Your task to perform on an android device: add a contact Image 0: 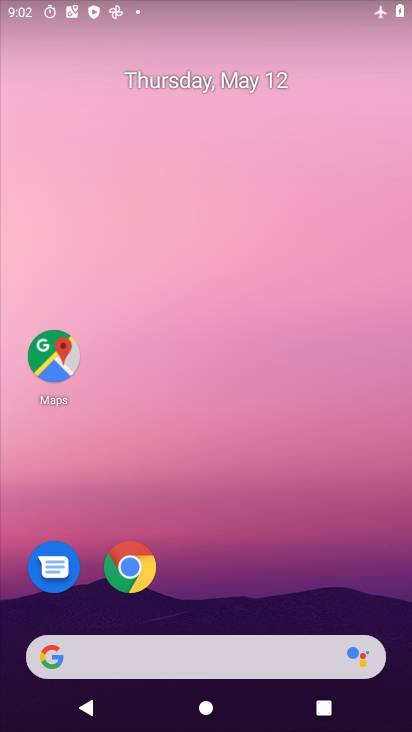
Step 0: drag from (235, 610) to (254, 139)
Your task to perform on an android device: add a contact Image 1: 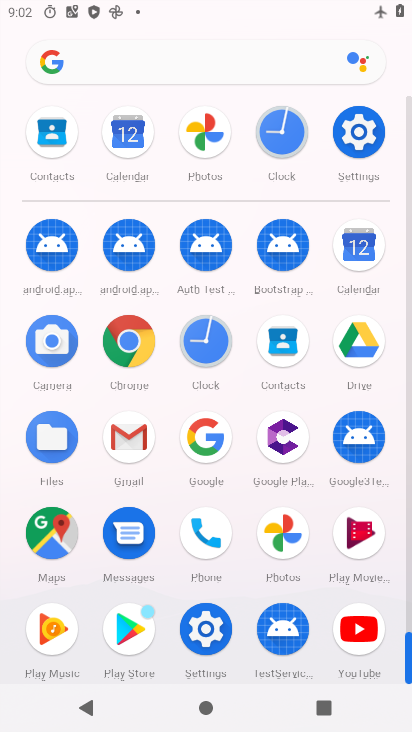
Step 1: click (281, 346)
Your task to perform on an android device: add a contact Image 2: 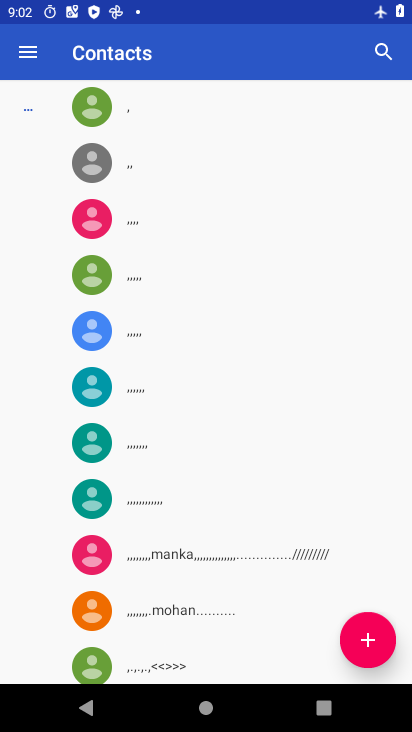
Step 2: click (376, 640)
Your task to perform on an android device: add a contact Image 3: 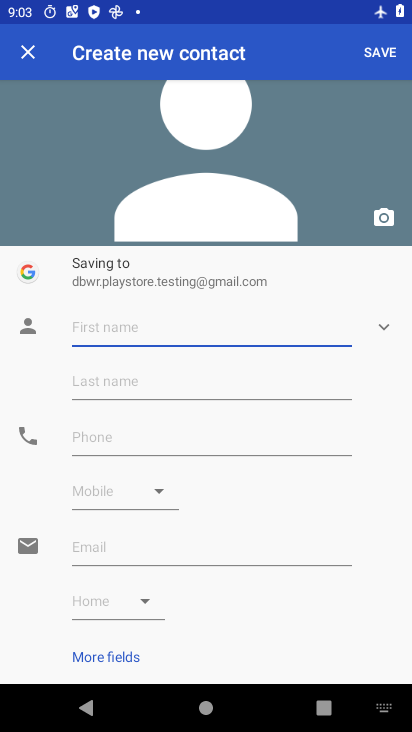
Step 3: type "nihmmj"
Your task to perform on an android device: add a contact Image 4: 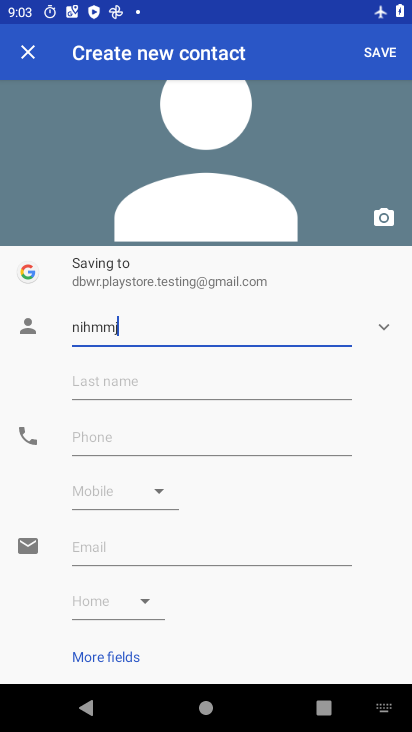
Step 4: click (130, 438)
Your task to perform on an android device: add a contact Image 5: 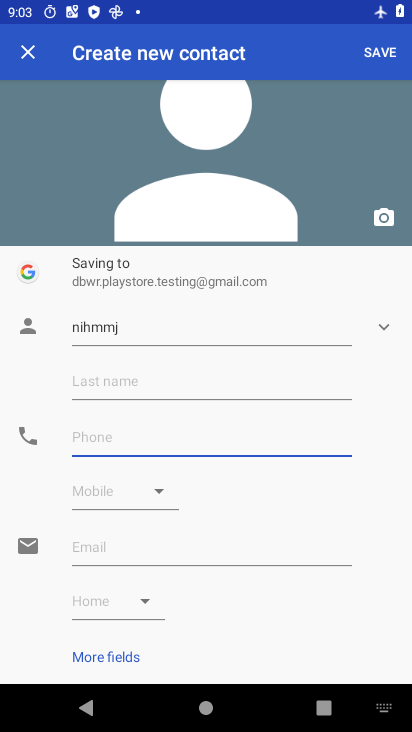
Step 5: type "986879675"
Your task to perform on an android device: add a contact Image 6: 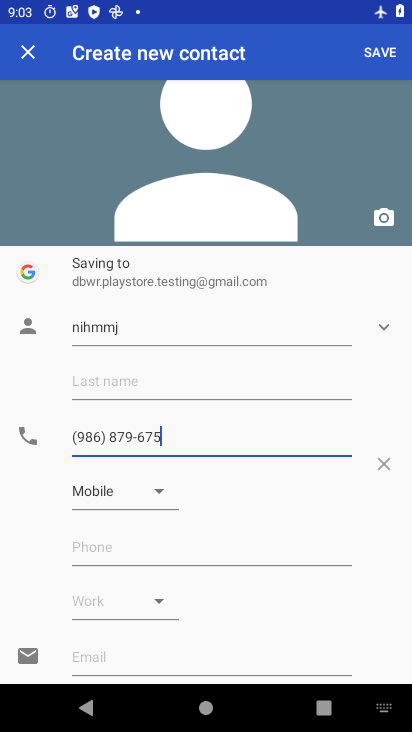
Step 6: click (386, 52)
Your task to perform on an android device: add a contact Image 7: 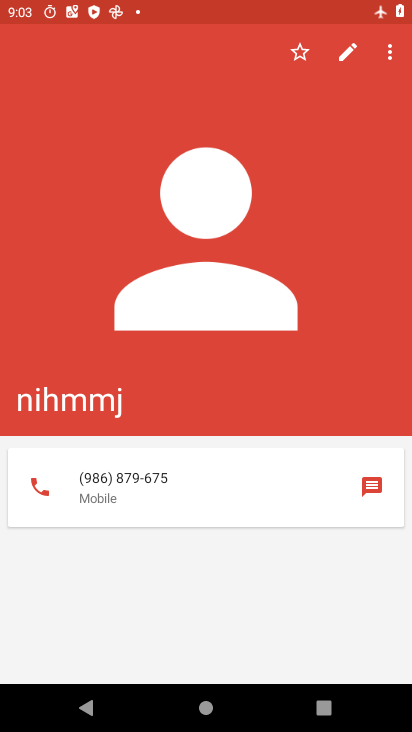
Step 7: task complete